Your task to perform on an android device: turn notification dots off Image 0: 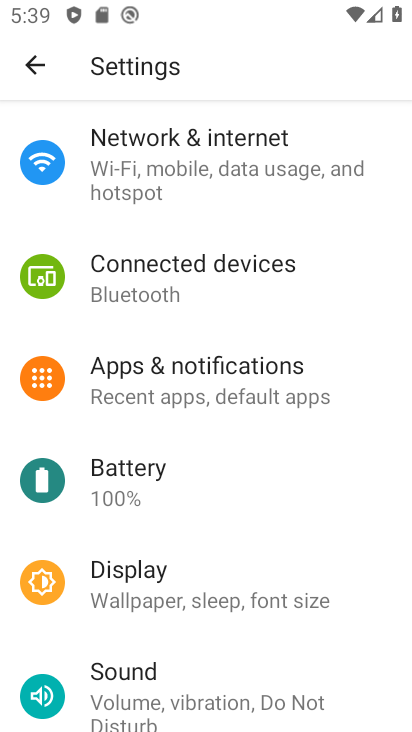
Step 0: press back button
Your task to perform on an android device: turn notification dots off Image 1: 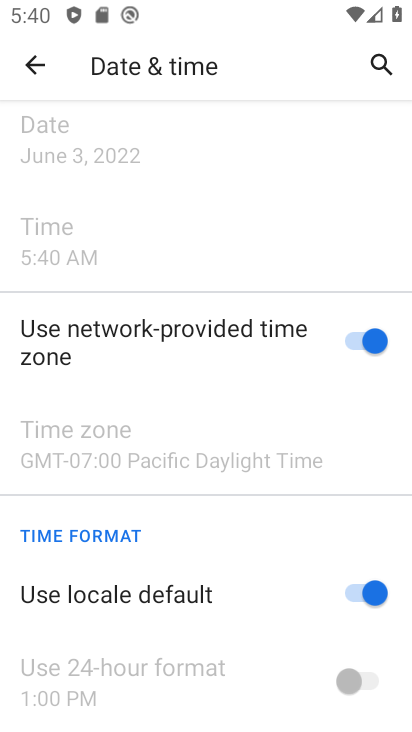
Step 1: press home button
Your task to perform on an android device: turn notification dots off Image 2: 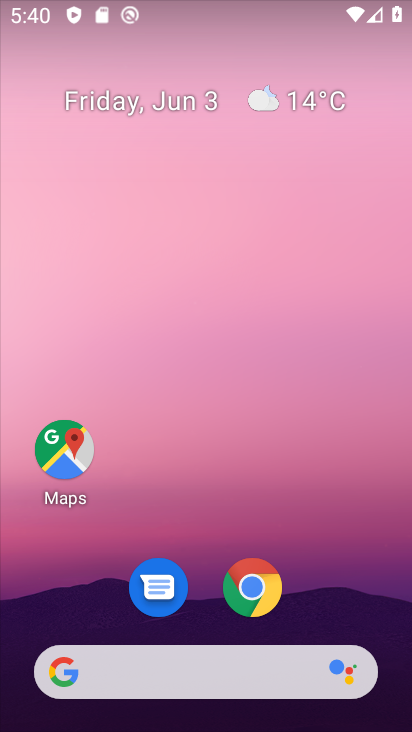
Step 2: drag from (322, 567) to (224, 18)
Your task to perform on an android device: turn notification dots off Image 3: 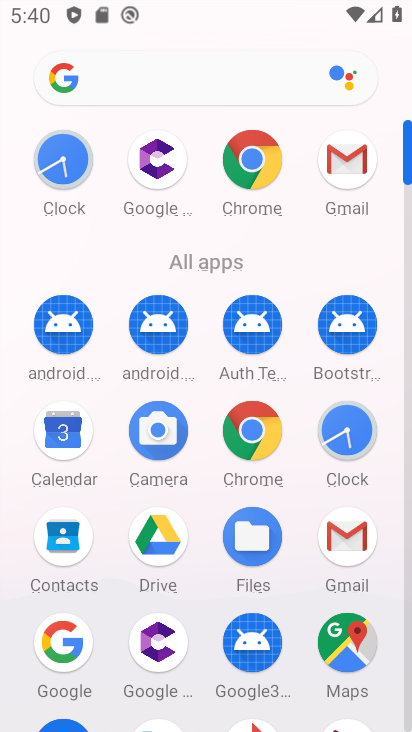
Step 3: drag from (1, 529) to (1, 133)
Your task to perform on an android device: turn notification dots off Image 4: 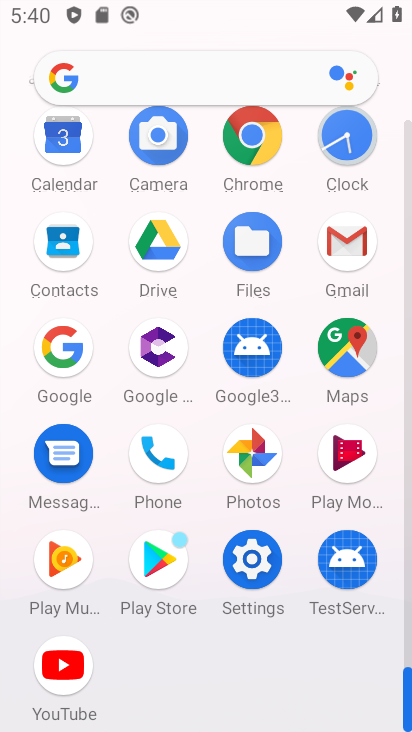
Step 4: click (254, 558)
Your task to perform on an android device: turn notification dots off Image 5: 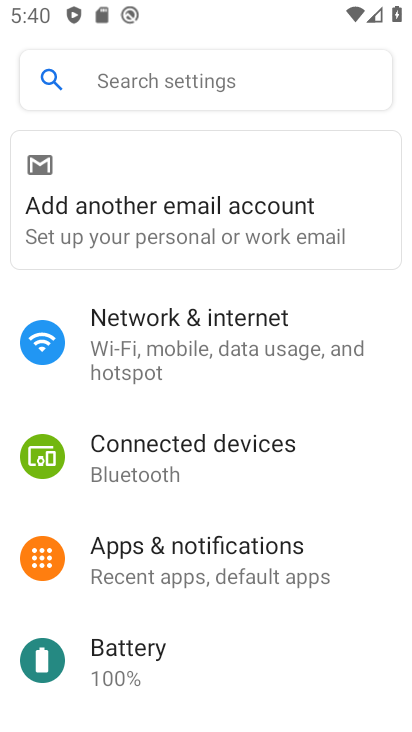
Step 5: click (200, 544)
Your task to perform on an android device: turn notification dots off Image 6: 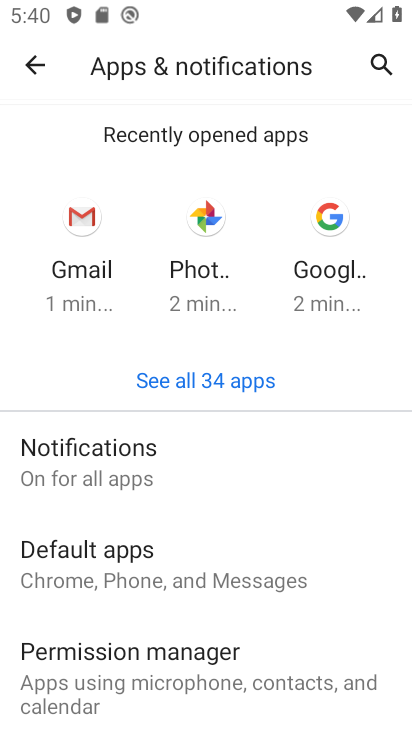
Step 6: drag from (301, 575) to (297, 190)
Your task to perform on an android device: turn notification dots off Image 7: 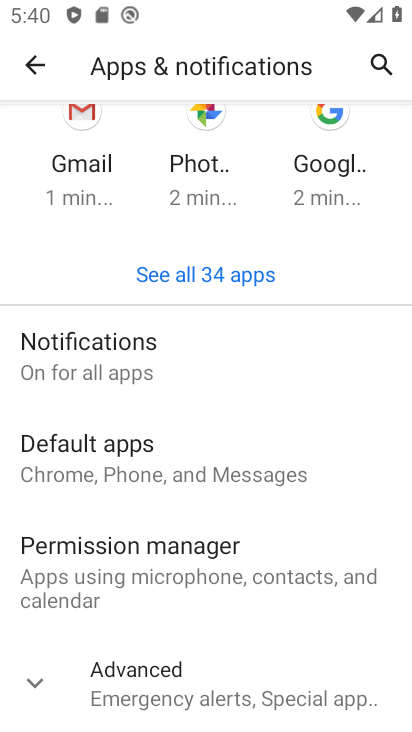
Step 7: click (72, 676)
Your task to perform on an android device: turn notification dots off Image 8: 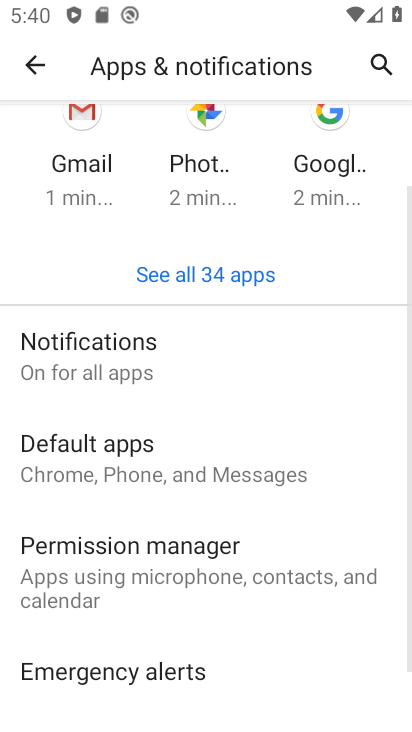
Step 8: drag from (300, 611) to (299, 252)
Your task to perform on an android device: turn notification dots off Image 9: 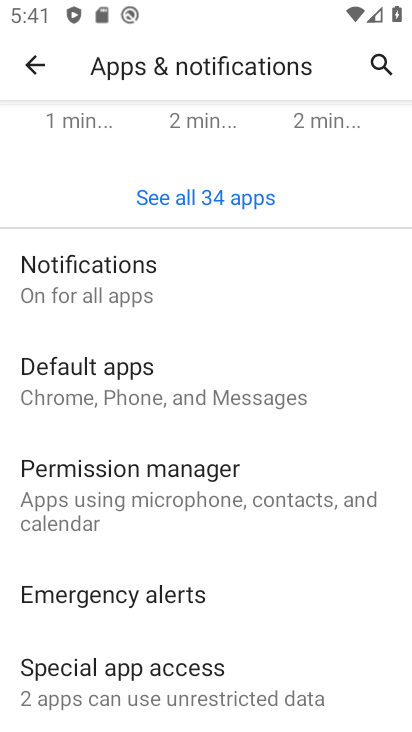
Step 9: drag from (273, 596) to (288, 274)
Your task to perform on an android device: turn notification dots off Image 10: 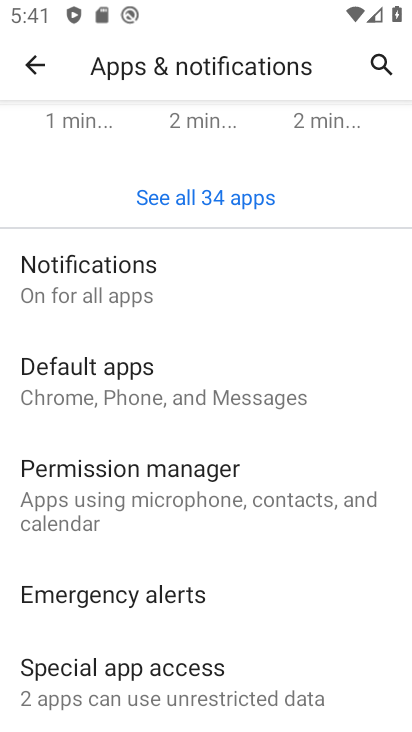
Step 10: click (152, 296)
Your task to perform on an android device: turn notification dots off Image 11: 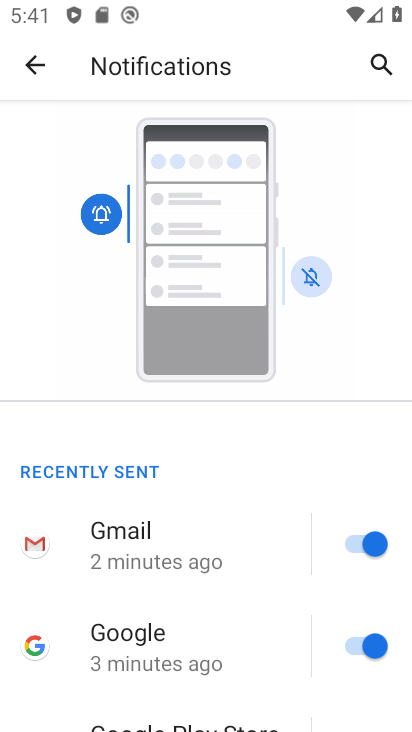
Step 11: drag from (268, 635) to (281, 215)
Your task to perform on an android device: turn notification dots off Image 12: 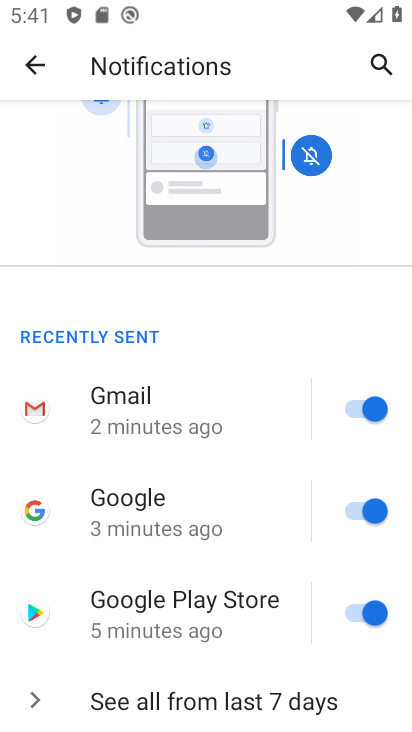
Step 12: drag from (205, 630) to (282, 224)
Your task to perform on an android device: turn notification dots off Image 13: 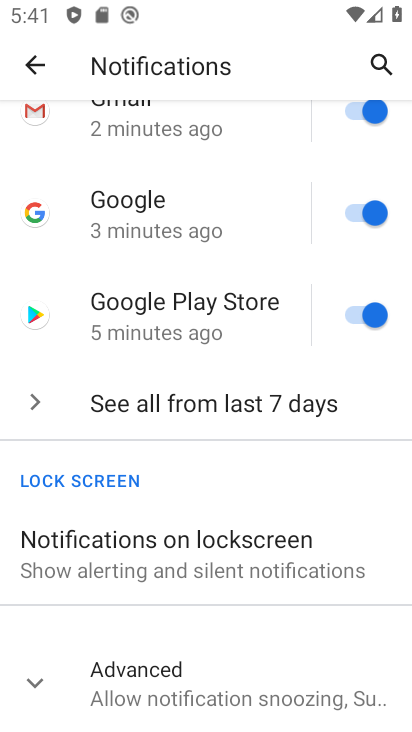
Step 13: drag from (214, 667) to (262, 221)
Your task to perform on an android device: turn notification dots off Image 14: 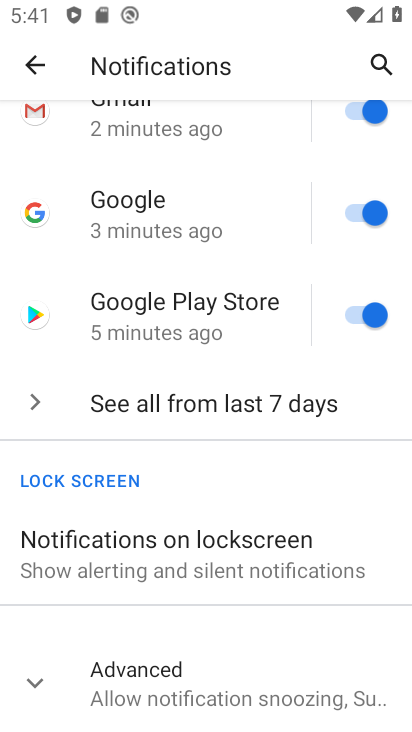
Step 14: click (33, 669)
Your task to perform on an android device: turn notification dots off Image 15: 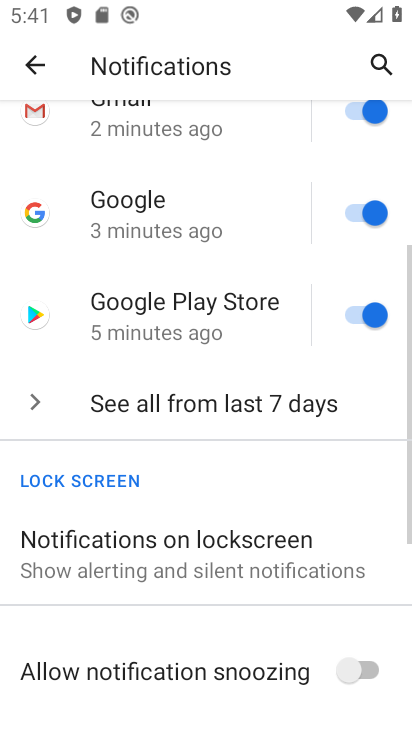
Step 15: drag from (254, 649) to (295, 236)
Your task to perform on an android device: turn notification dots off Image 16: 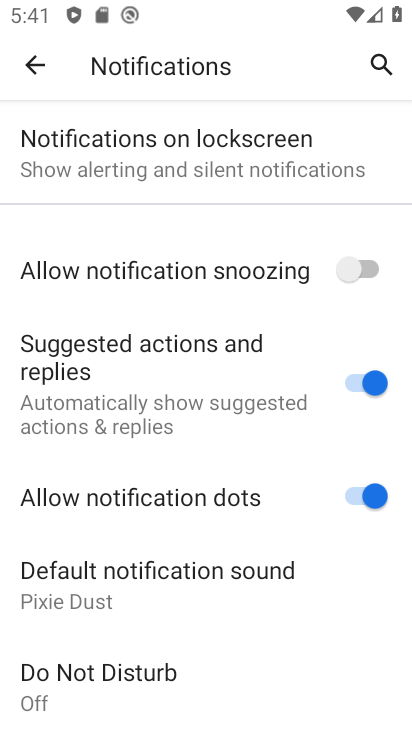
Step 16: click (348, 493)
Your task to perform on an android device: turn notification dots off Image 17: 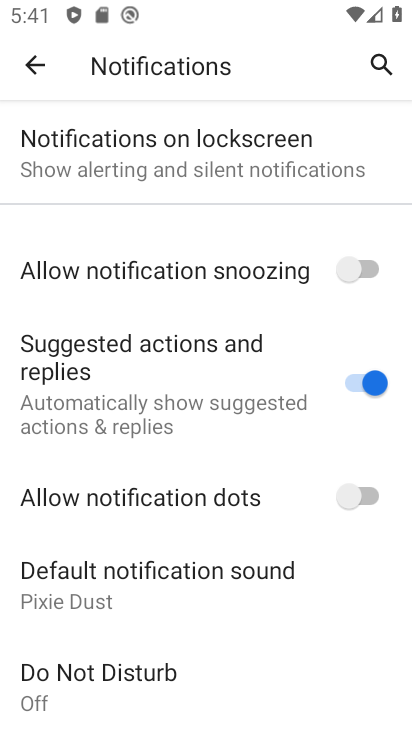
Step 17: task complete